Your task to perform on an android device: When is my next meeting? Image 0: 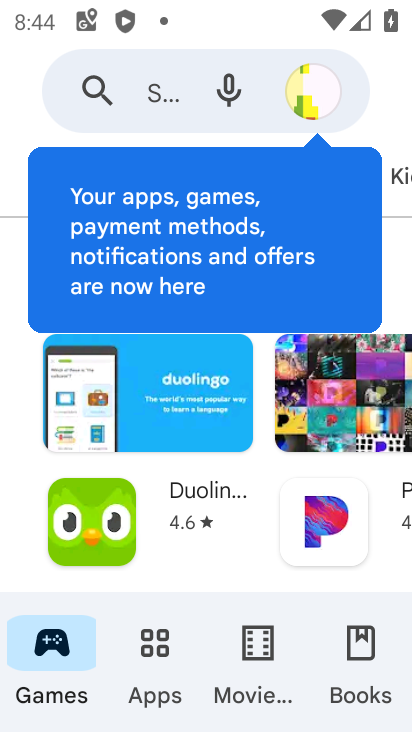
Step 0: press home button
Your task to perform on an android device: When is my next meeting? Image 1: 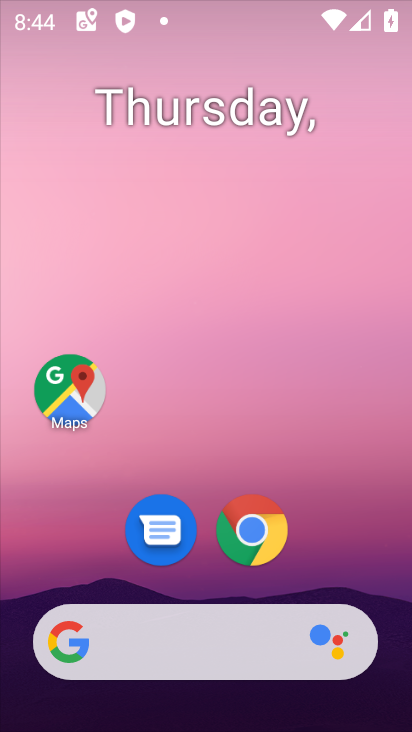
Step 1: drag from (183, 504) to (248, 18)
Your task to perform on an android device: When is my next meeting? Image 2: 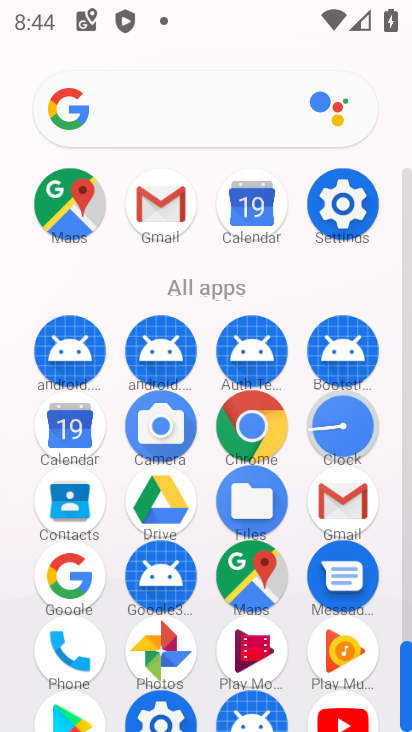
Step 2: click (66, 446)
Your task to perform on an android device: When is my next meeting? Image 3: 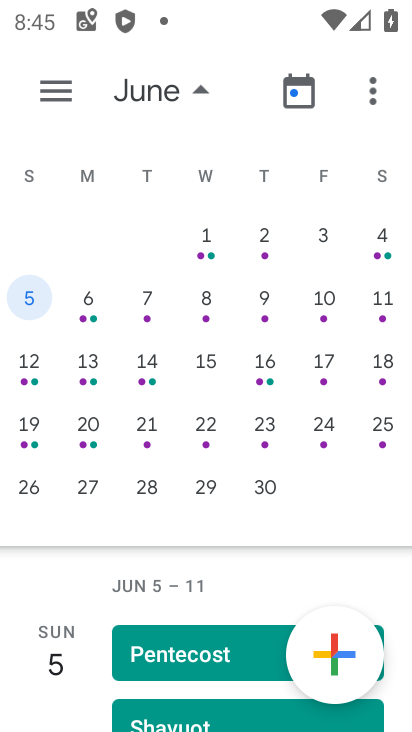
Step 3: click (54, 103)
Your task to perform on an android device: When is my next meeting? Image 4: 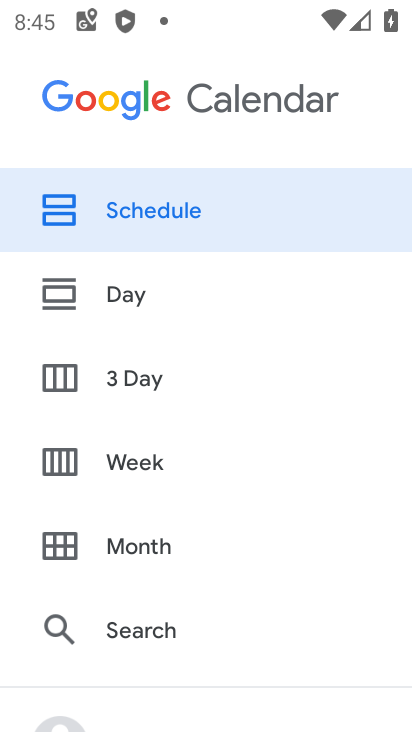
Step 4: press back button
Your task to perform on an android device: When is my next meeting? Image 5: 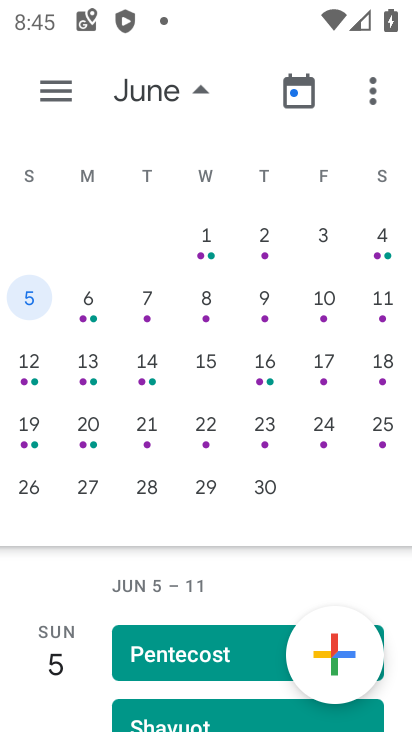
Step 5: drag from (48, 367) to (409, 137)
Your task to perform on an android device: When is my next meeting? Image 6: 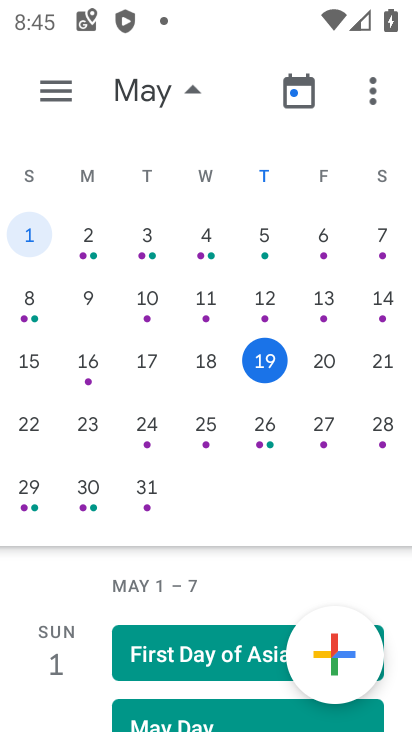
Step 6: click (293, 366)
Your task to perform on an android device: When is my next meeting? Image 7: 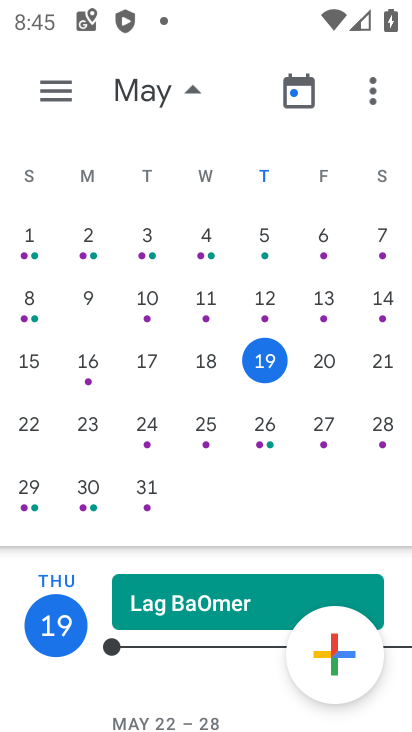
Step 7: click (49, 100)
Your task to perform on an android device: When is my next meeting? Image 8: 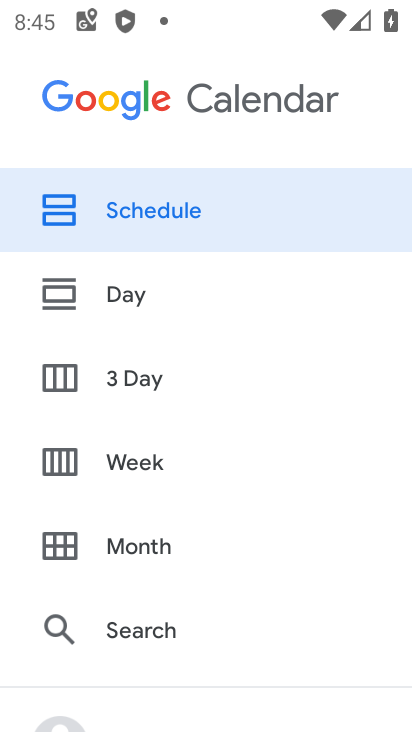
Step 8: drag from (235, 417) to (323, 115)
Your task to perform on an android device: When is my next meeting? Image 9: 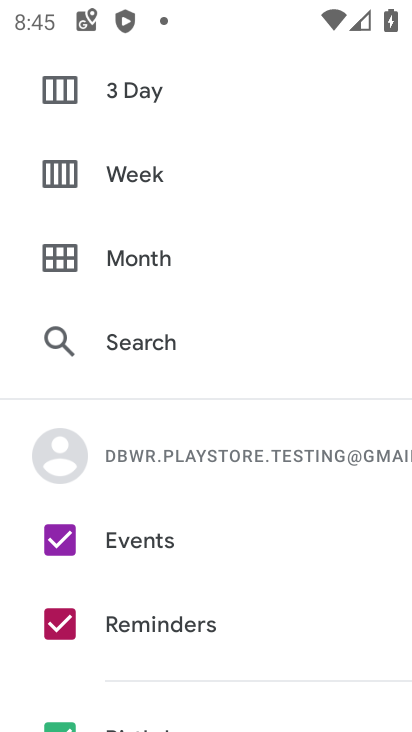
Step 9: drag from (158, 640) to (160, 245)
Your task to perform on an android device: When is my next meeting? Image 10: 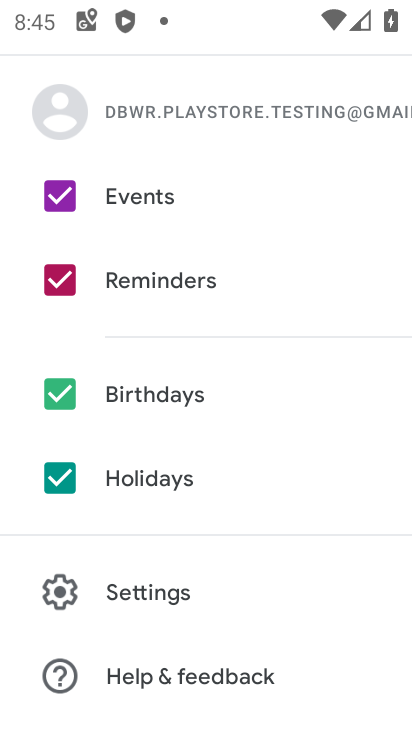
Step 10: click (70, 466)
Your task to perform on an android device: When is my next meeting? Image 11: 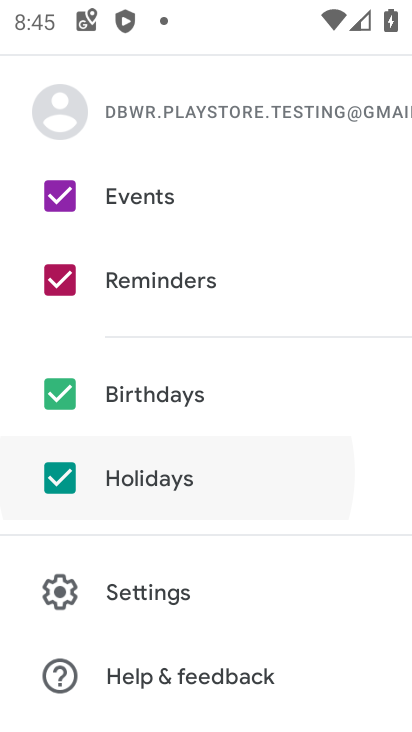
Step 11: click (56, 361)
Your task to perform on an android device: When is my next meeting? Image 12: 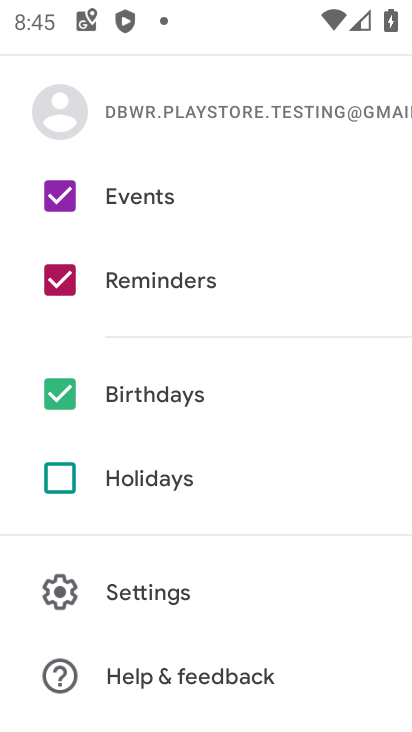
Step 12: click (73, 400)
Your task to perform on an android device: When is my next meeting? Image 13: 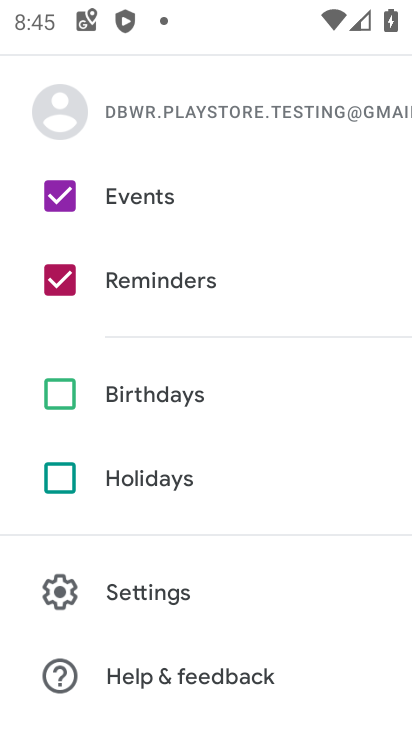
Step 13: task complete